Your task to perform on an android device: Open eBay Image 0: 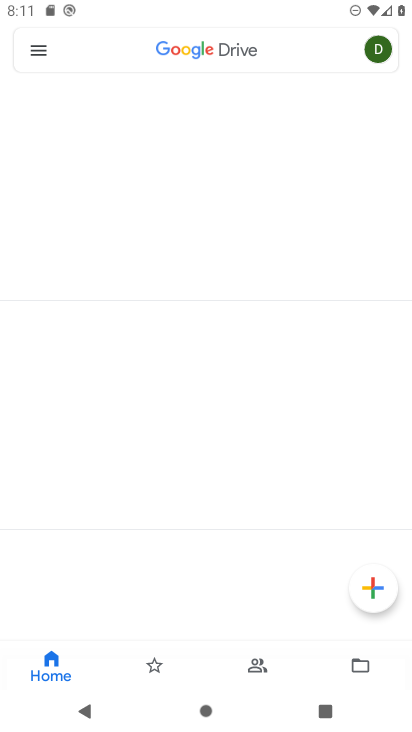
Step 0: drag from (212, 625) to (225, 131)
Your task to perform on an android device: Open eBay Image 1: 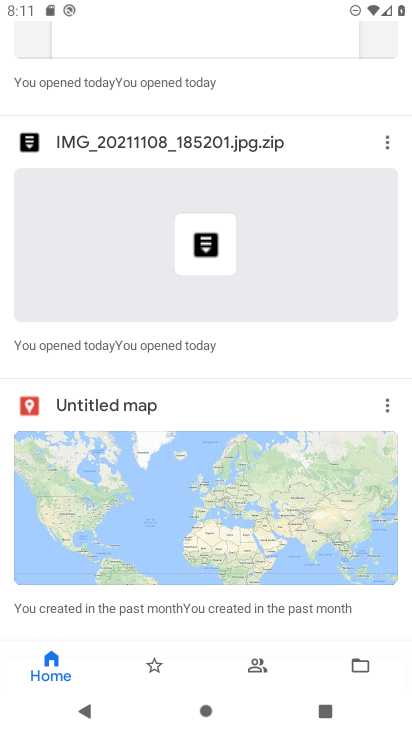
Step 1: press home button
Your task to perform on an android device: Open eBay Image 2: 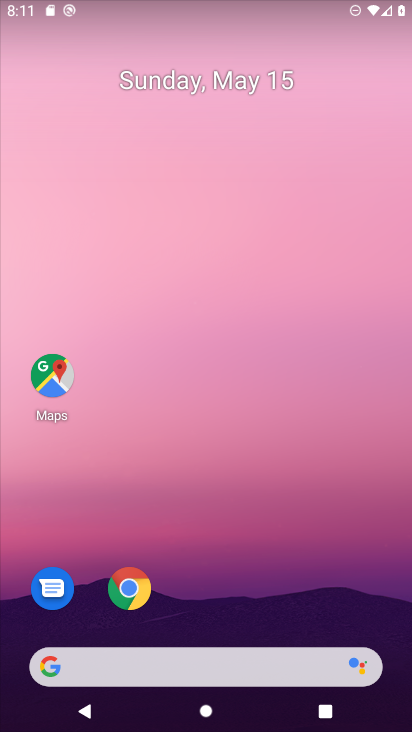
Step 2: click (133, 585)
Your task to perform on an android device: Open eBay Image 3: 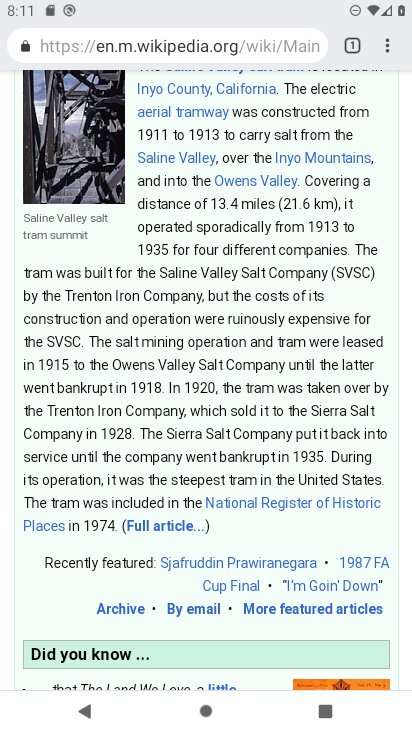
Step 3: click (343, 45)
Your task to perform on an android device: Open eBay Image 4: 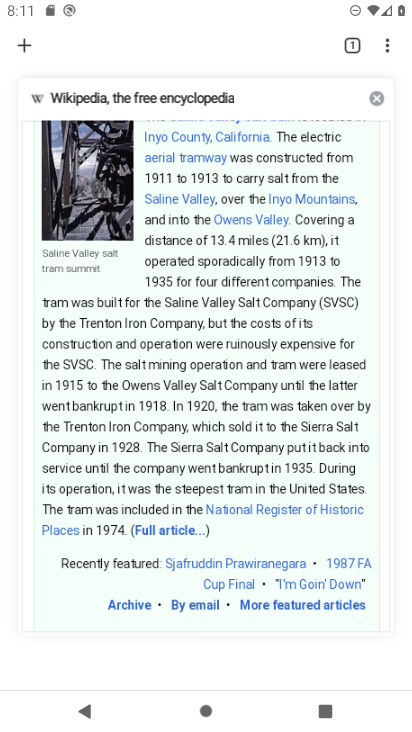
Step 4: click (371, 94)
Your task to perform on an android device: Open eBay Image 5: 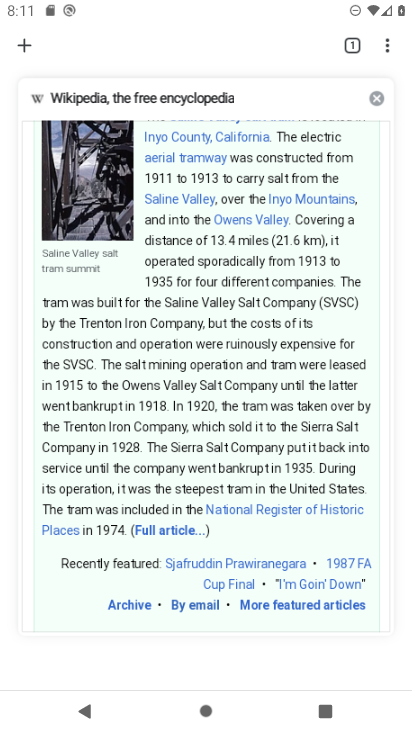
Step 5: click (23, 42)
Your task to perform on an android device: Open eBay Image 6: 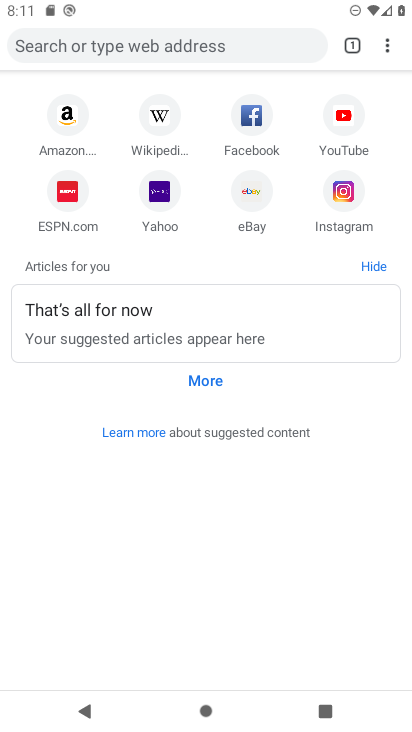
Step 6: click (256, 187)
Your task to perform on an android device: Open eBay Image 7: 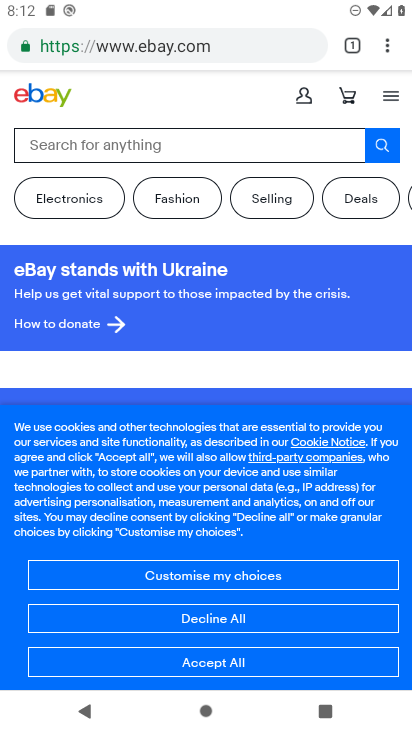
Step 7: drag from (196, 583) to (199, 38)
Your task to perform on an android device: Open eBay Image 8: 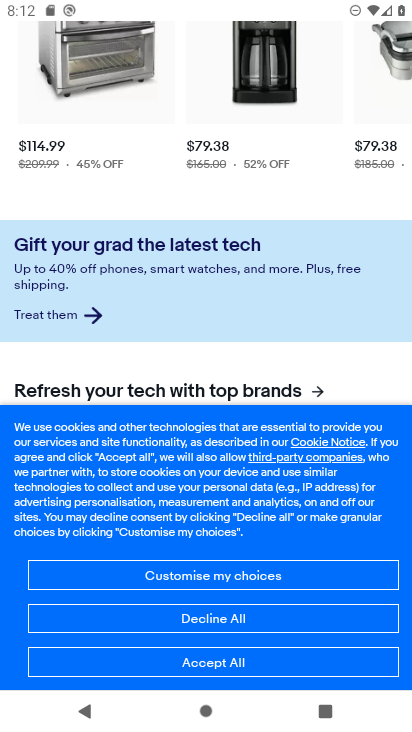
Step 8: click (212, 661)
Your task to perform on an android device: Open eBay Image 9: 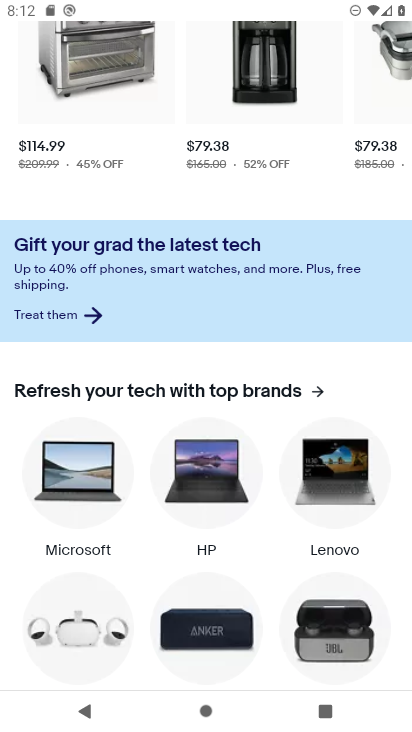
Step 9: task complete